Your task to perform on an android device: Go to location settings Image 0: 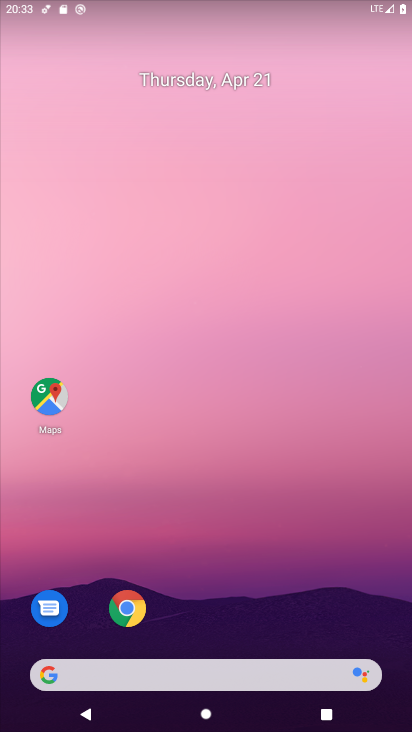
Step 0: drag from (270, 621) to (240, 28)
Your task to perform on an android device: Go to location settings Image 1: 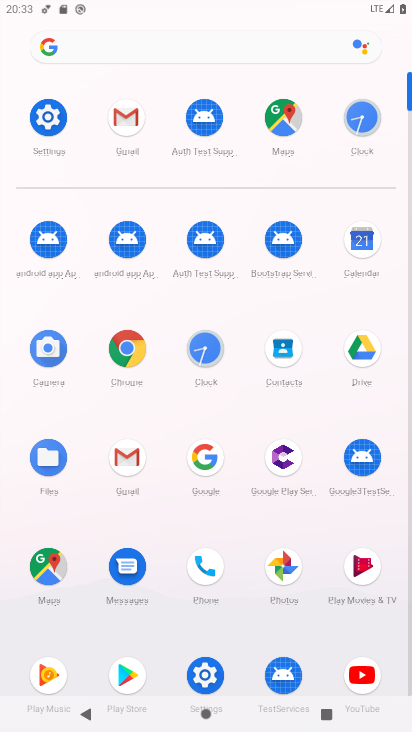
Step 1: click (45, 123)
Your task to perform on an android device: Go to location settings Image 2: 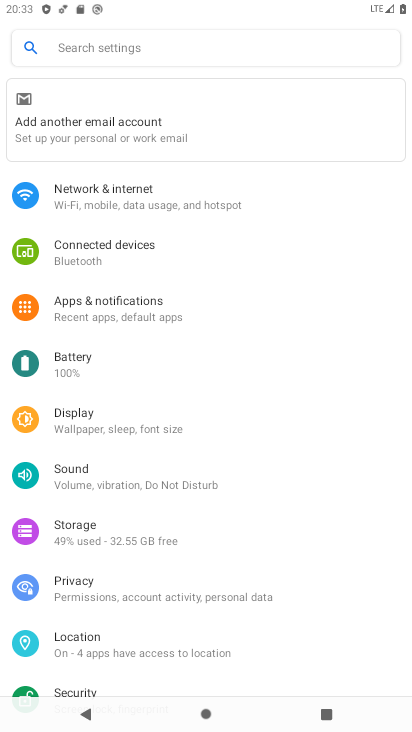
Step 2: click (190, 659)
Your task to perform on an android device: Go to location settings Image 3: 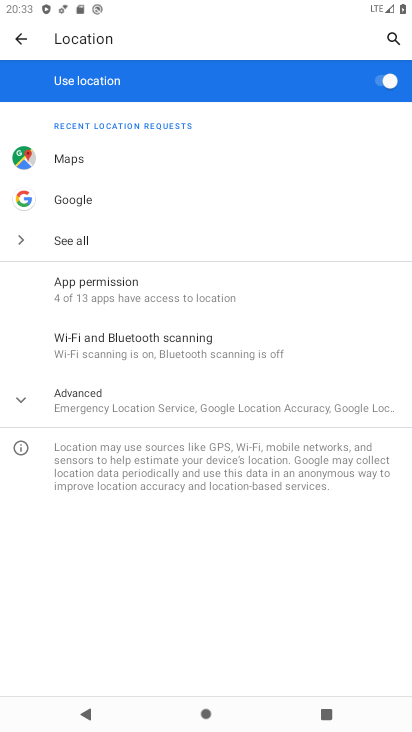
Step 3: task complete